Your task to perform on an android device: Go to accessibility settings Image 0: 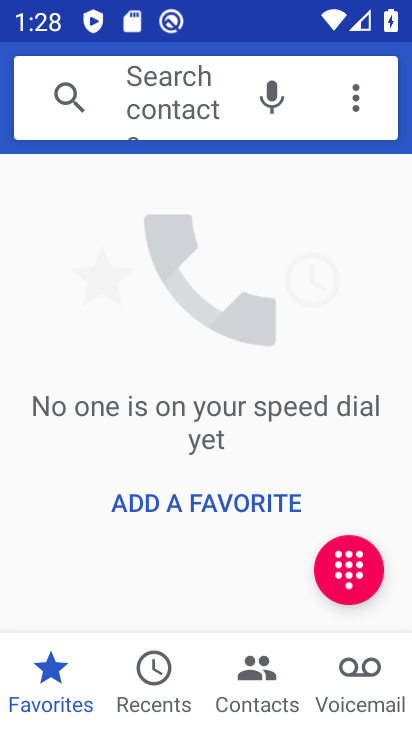
Step 0: press home button
Your task to perform on an android device: Go to accessibility settings Image 1: 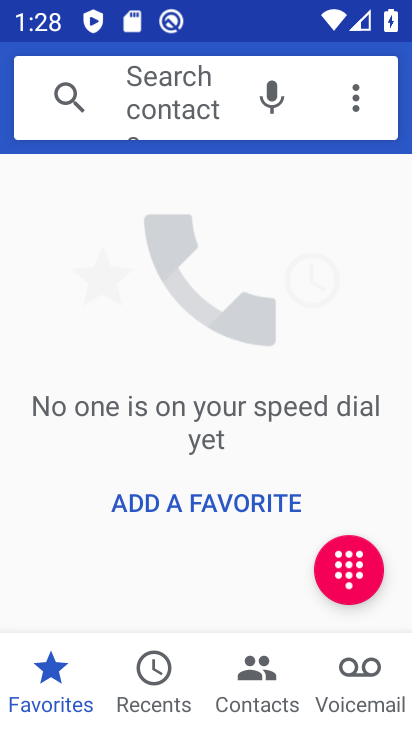
Step 1: press home button
Your task to perform on an android device: Go to accessibility settings Image 2: 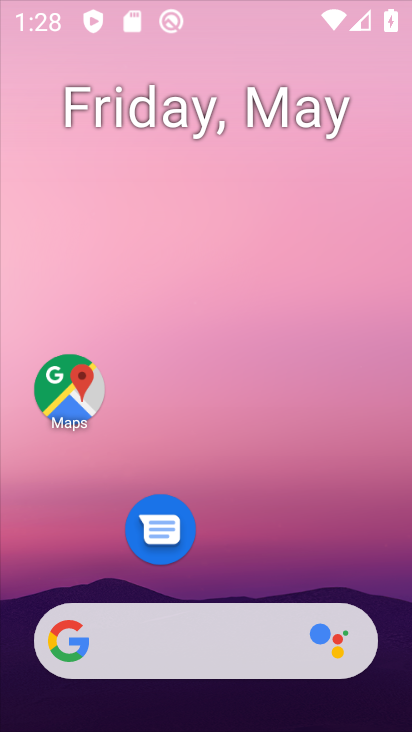
Step 2: drag from (165, 559) to (219, 110)
Your task to perform on an android device: Go to accessibility settings Image 3: 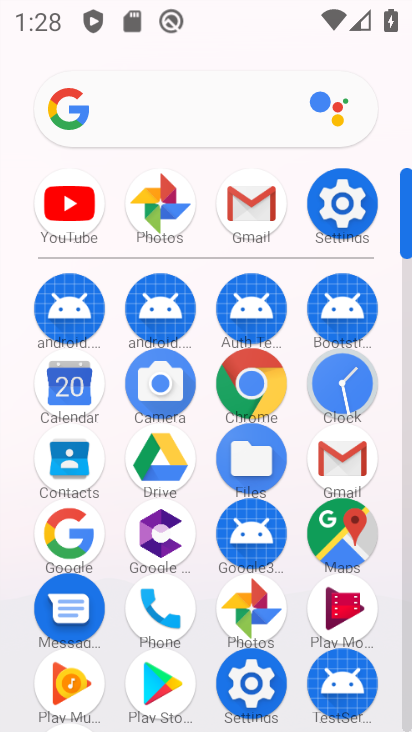
Step 3: click (337, 212)
Your task to perform on an android device: Go to accessibility settings Image 4: 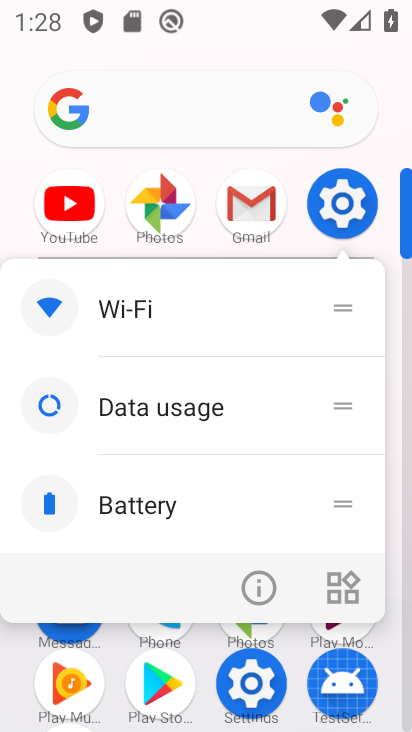
Step 4: click (267, 587)
Your task to perform on an android device: Go to accessibility settings Image 5: 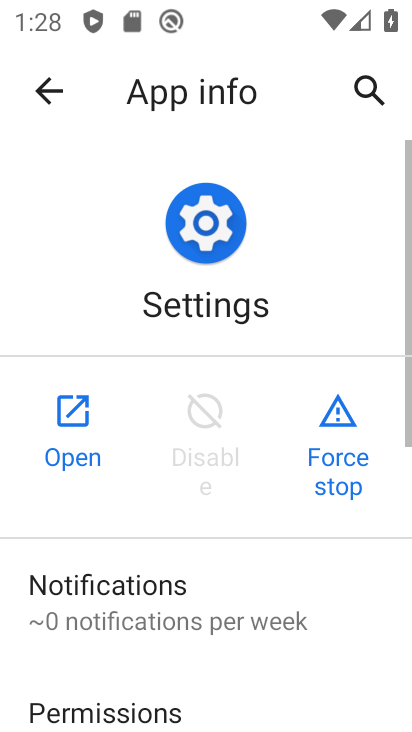
Step 5: click (72, 434)
Your task to perform on an android device: Go to accessibility settings Image 6: 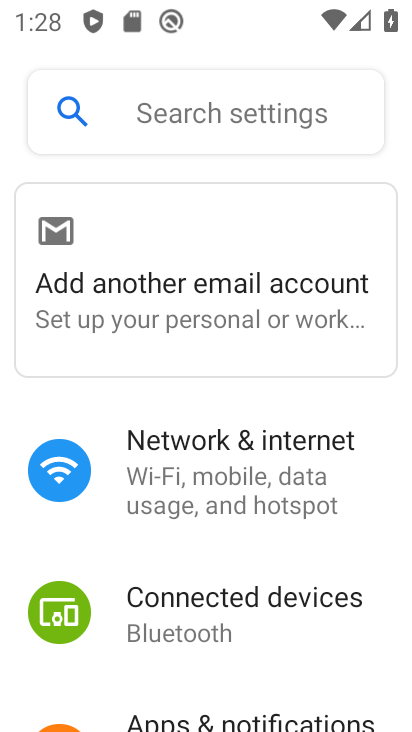
Step 6: drag from (210, 587) to (282, 117)
Your task to perform on an android device: Go to accessibility settings Image 7: 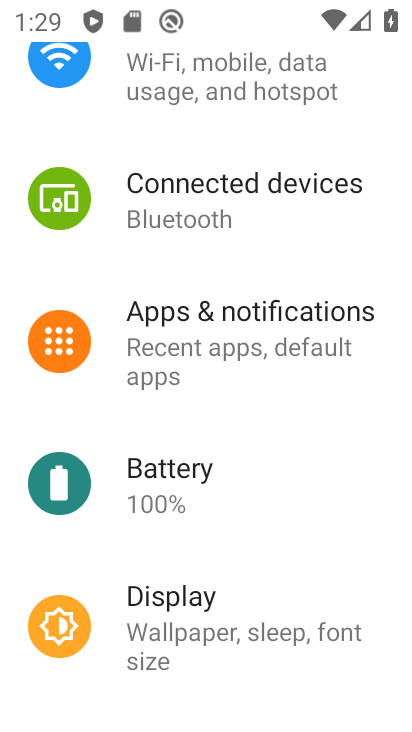
Step 7: click (157, 348)
Your task to perform on an android device: Go to accessibility settings Image 8: 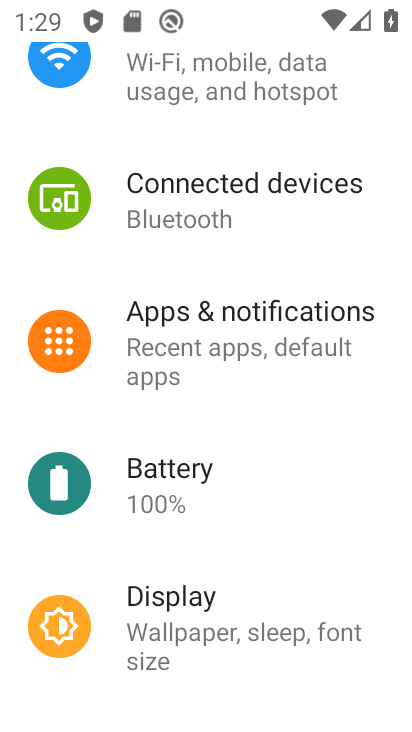
Step 8: drag from (275, 571) to (346, 172)
Your task to perform on an android device: Go to accessibility settings Image 9: 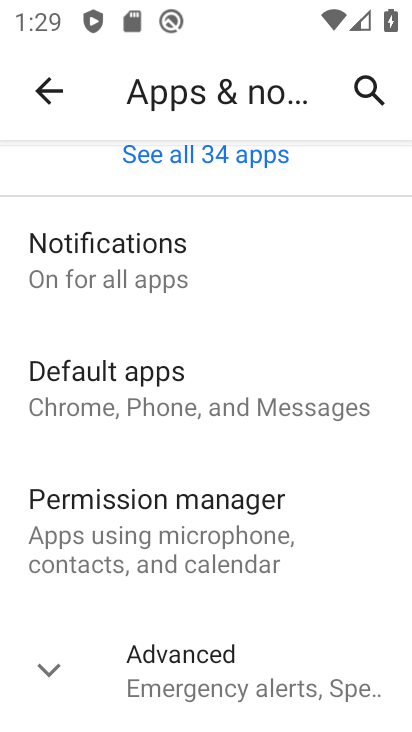
Step 9: drag from (243, 593) to (272, 318)
Your task to perform on an android device: Go to accessibility settings Image 10: 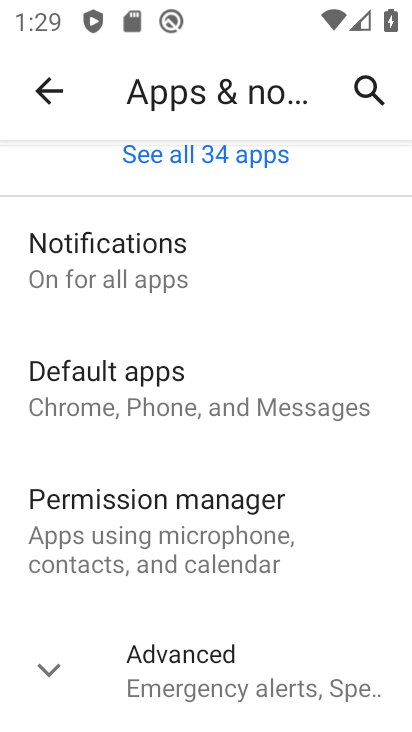
Step 10: click (168, 690)
Your task to perform on an android device: Go to accessibility settings Image 11: 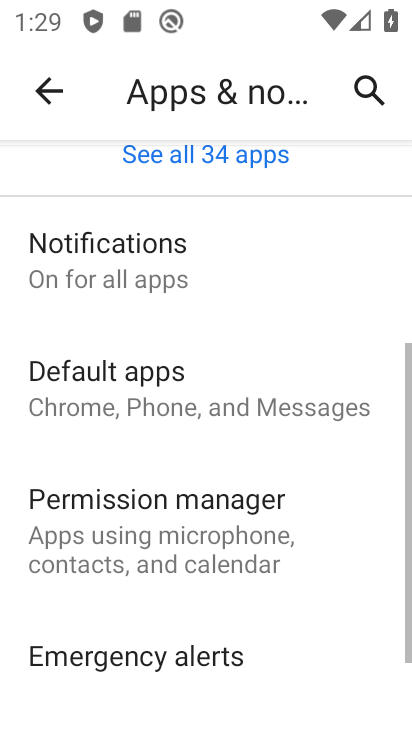
Step 11: drag from (216, 656) to (324, 163)
Your task to perform on an android device: Go to accessibility settings Image 12: 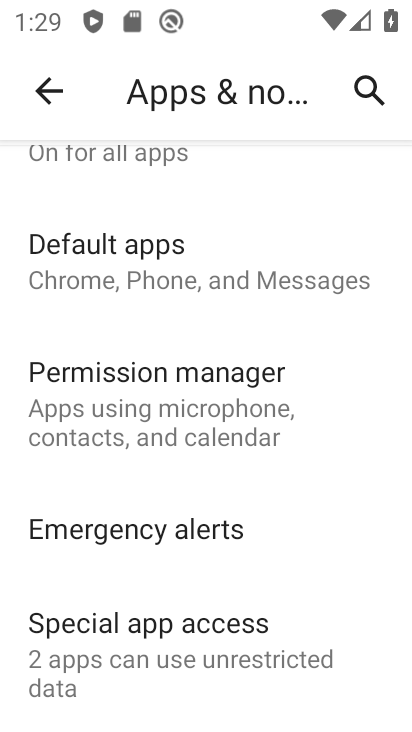
Step 12: click (35, 93)
Your task to perform on an android device: Go to accessibility settings Image 13: 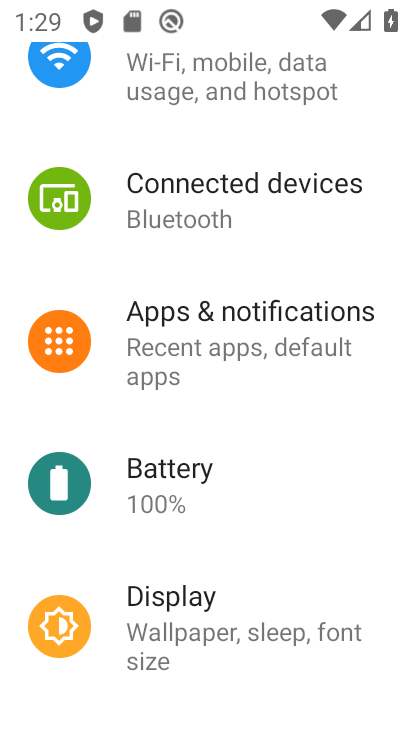
Step 13: drag from (226, 524) to (271, 10)
Your task to perform on an android device: Go to accessibility settings Image 14: 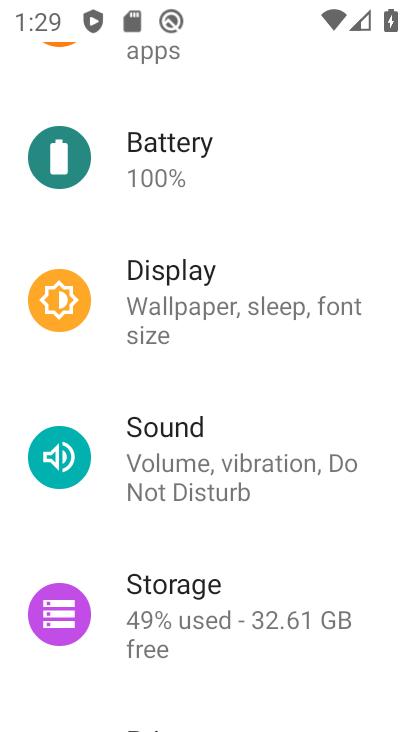
Step 14: drag from (221, 644) to (315, 141)
Your task to perform on an android device: Go to accessibility settings Image 15: 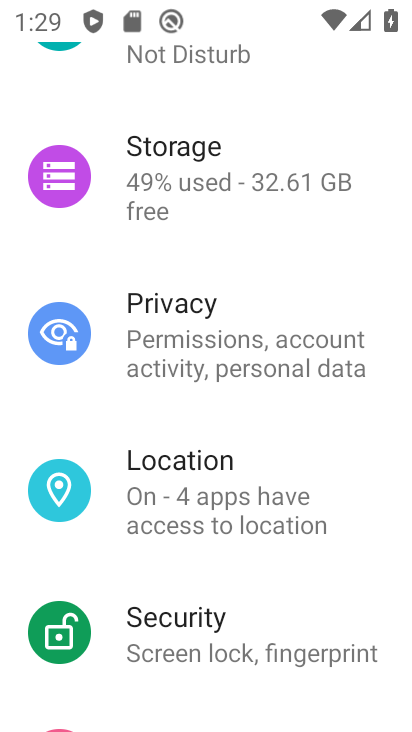
Step 15: drag from (182, 618) to (279, 160)
Your task to perform on an android device: Go to accessibility settings Image 16: 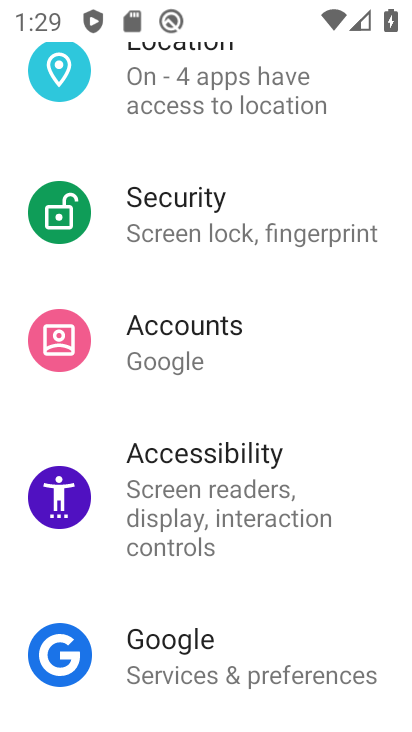
Step 16: click (158, 510)
Your task to perform on an android device: Go to accessibility settings Image 17: 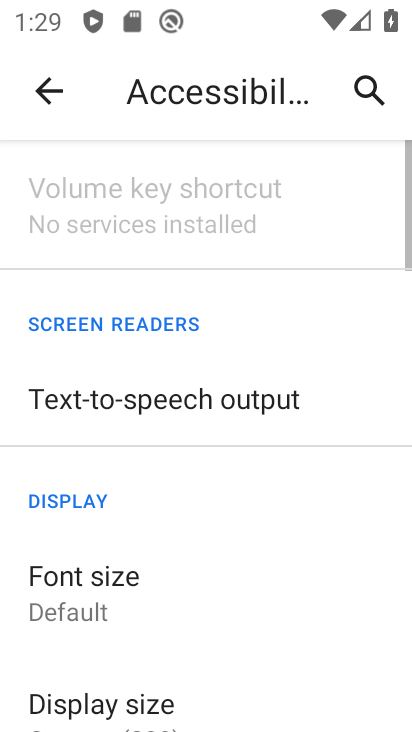
Step 17: task complete